Your task to perform on an android device: open a new tab in the chrome app Image 0: 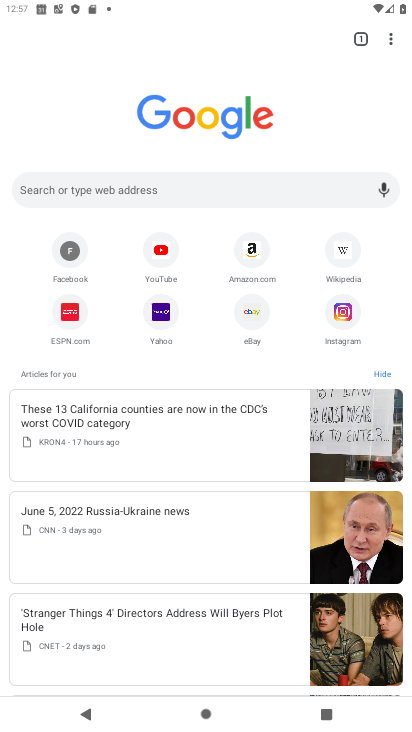
Step 0: press home button
Your task to perform on an android device: open a new tab in the chrome app Image 1: 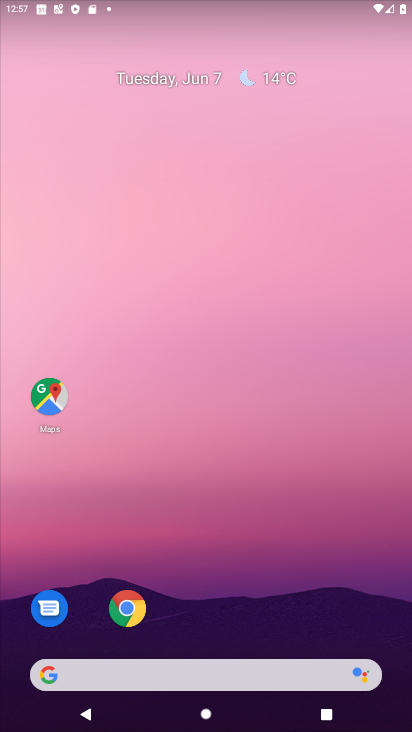
Step 1: click (141, 599)
Your task to perform on an android device: open a new tab in the chrome app Image 2: 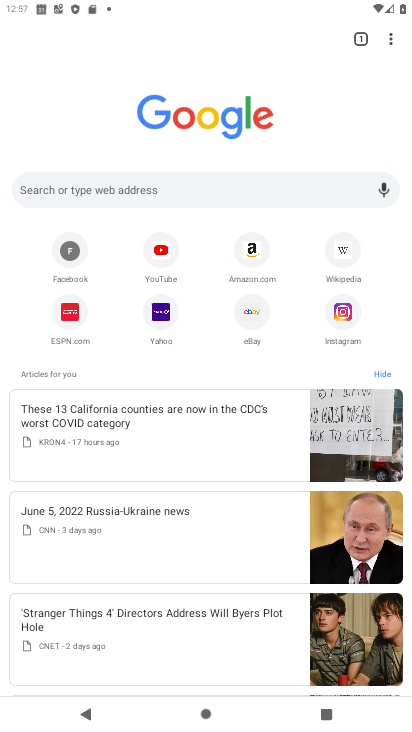
Step 2: click (360, 43)
Your task to perform on an android device: open a new tab in the chrome app Image 3: 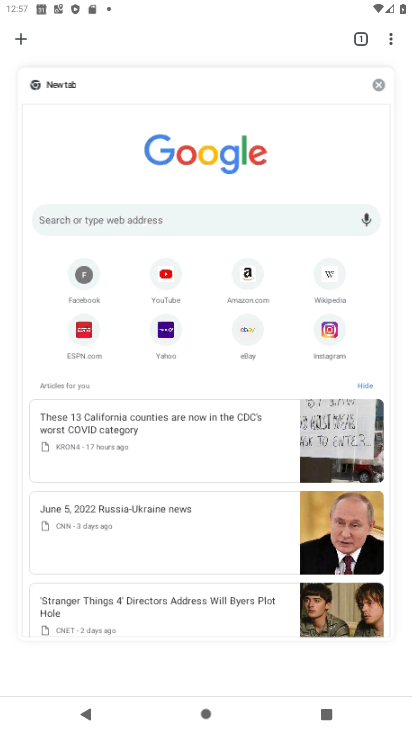
Step 3: click (21, 36)
Your task to perform on an android device: open a new tab in the chrome app Image 4: 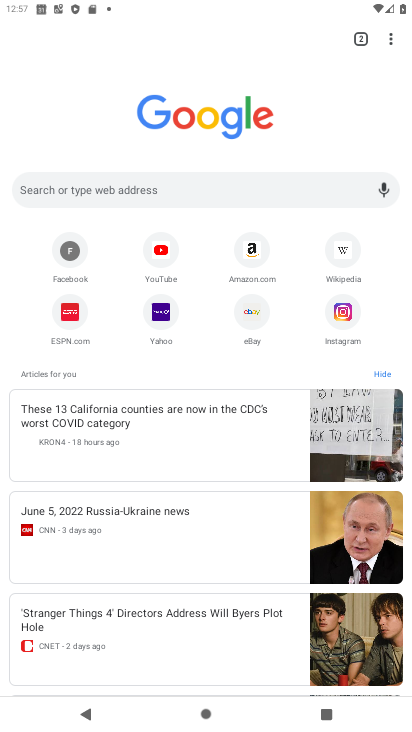
Step 4: task complete